Your task to perform on an android device: Is it going to rain today? Image 0: 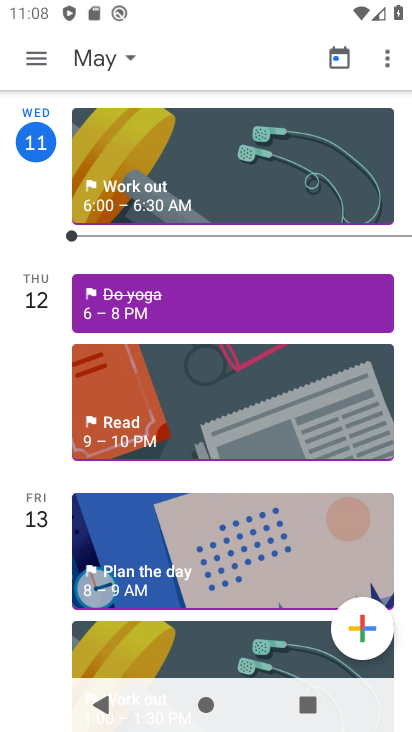
Step 0: press home button
Your task to perform on an android device: Is it going to rain today? Image 1: 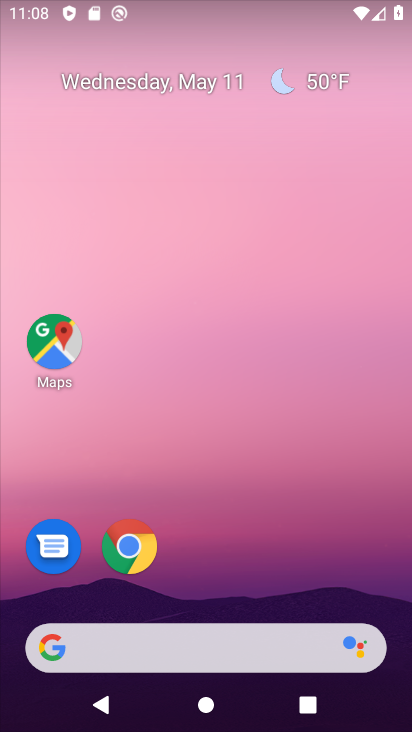
Step 1: click (311, 89)
Your task to perform on an android device: Is it going to rain today? Image 2: 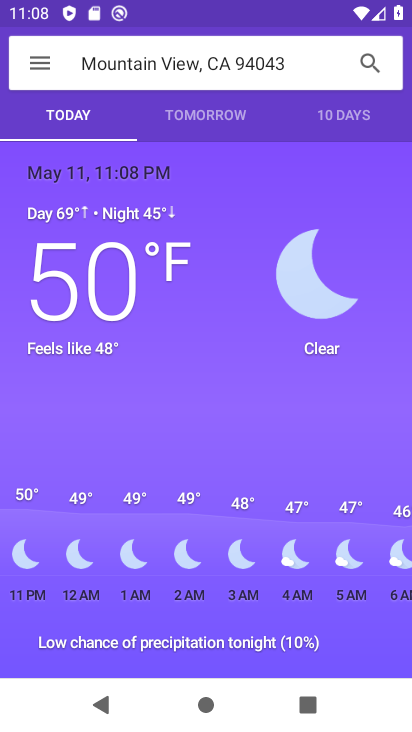
Step 2: task complete